Your task to perform on an android device: toggle priority inbox in the gmail app Image 0: 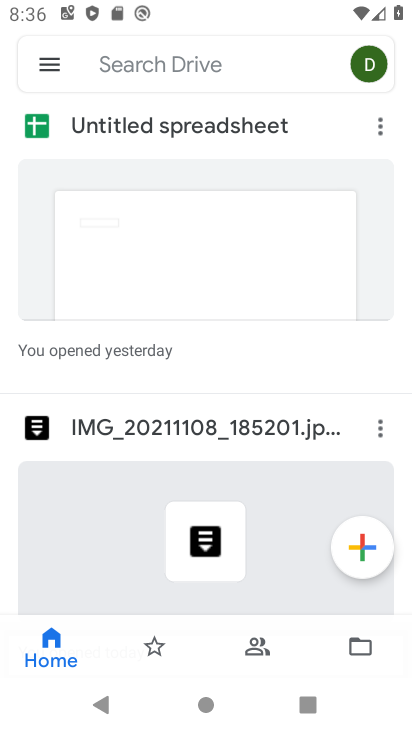
Step 0: press home button
Your task to perform on an android device: toggle priority inbox in the gmail app Image 1: 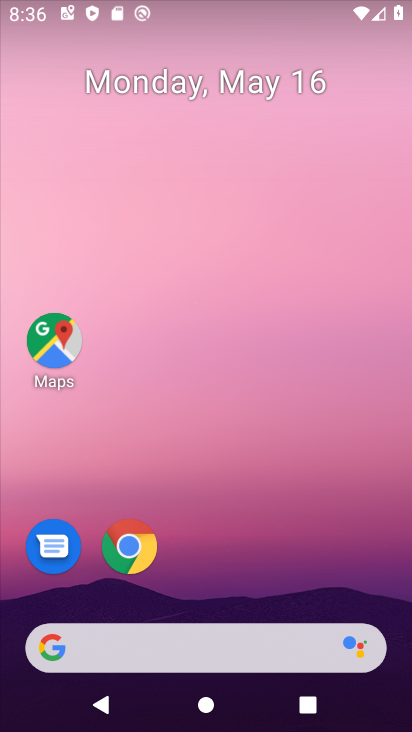
Step 1: drag from (264, 662) to (234, 77)
Your task to perform on an android device: toggle priority inbox in the gmail app Image 2: 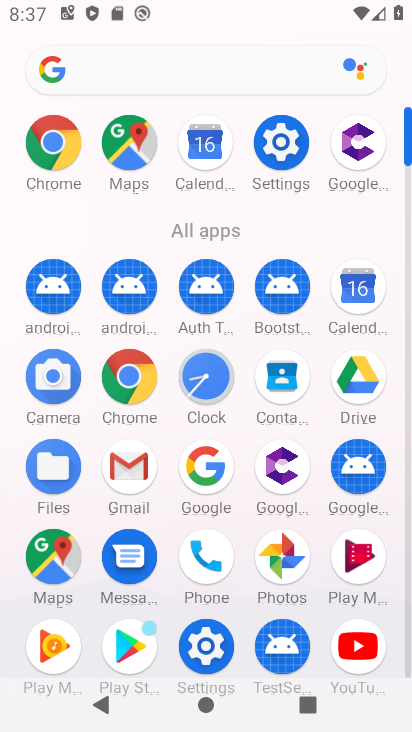
Step 2: click (141, 463)
Your task to perform on an android device: toggle priority inbox in the gmail app Image 3: 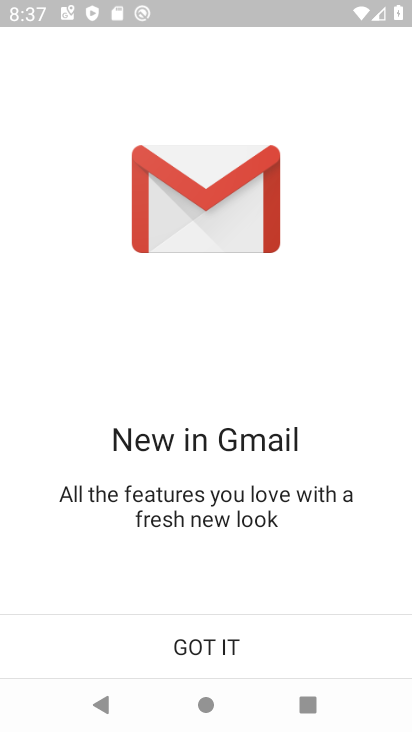
Step 3: click (169, 647)
Your task to perform on an android device: toggle priority inbox in the gmail app Image 4: 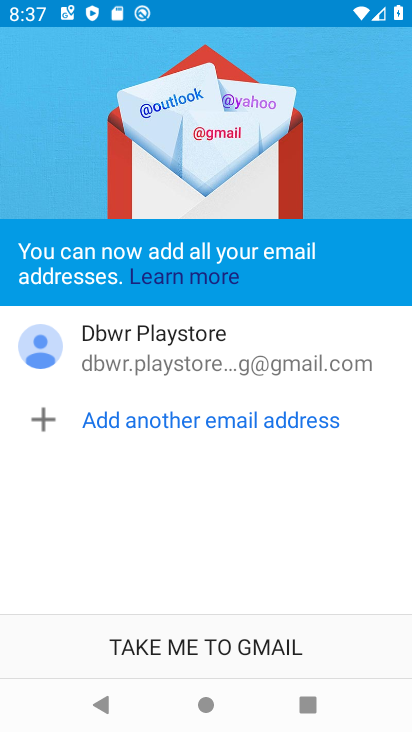
Step 4: click (168, 646)
Your task to perform on an android device: toggle priority inbox in the gmail app Image 5: 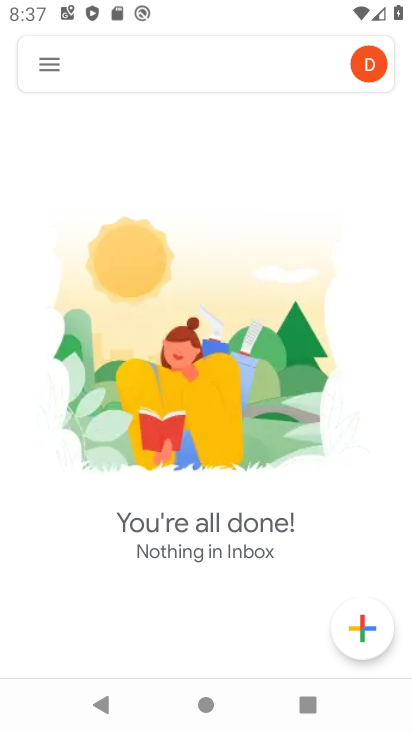
Step 5: click (55, 51)
Your task to perform on an android device: toggle priority inbox in the gmail app Image 6: 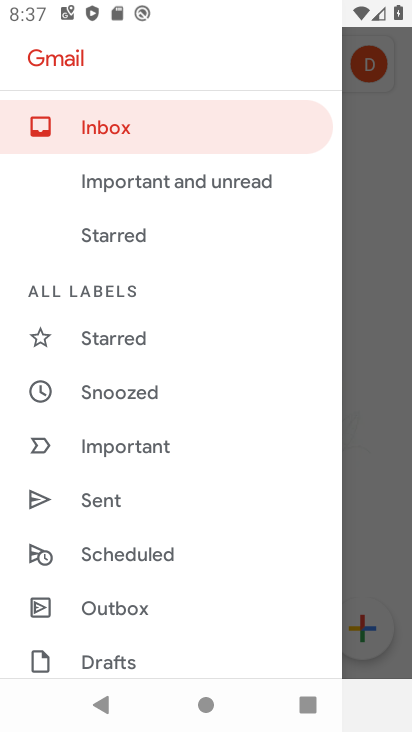
Step 6: drag from (156, 490) to (252, 137)
Your task to perform on an android device: toggle priority inbox in the gmail app Image 7: 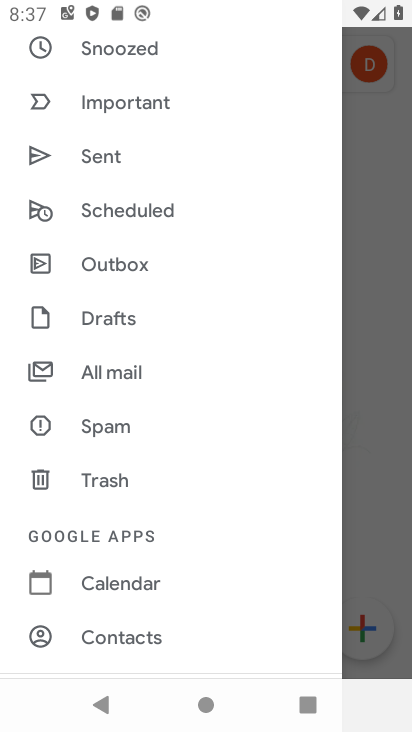
Step 7: drag from (135, 571) to (150, 490)
Your task to perform on an android device: toggle priority inbox in the gmail app Image 8: 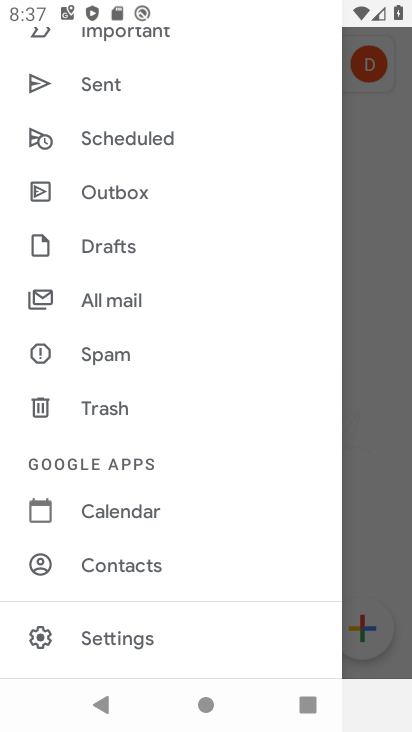
Step 8: click (135, 624)
Your task to perform on an android device: toggle priority inbox in the gmail app Image 9: 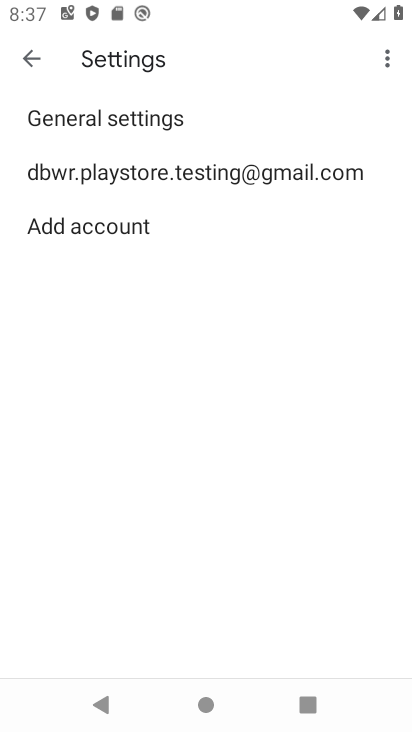
Step 9: click (166, 168)
Your task to perform on an android device: toggle priority inbox in the gmail app Image 10: 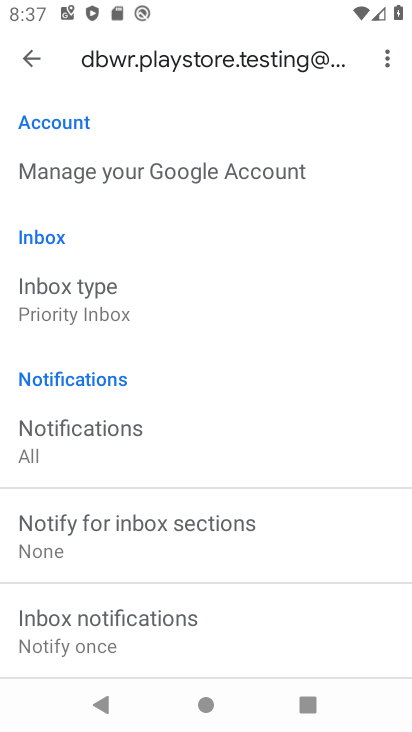
Step 10: click (143, 305)
Your task to perform on an android device: toggle priority inbox in the gmail app Image 11: 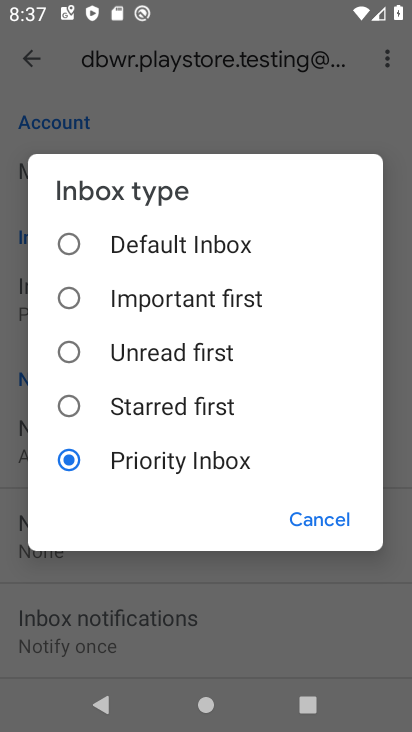
Step 11: task complete